Your task to perform on an android device: open app "Move to iOS" (install if not already installed) Image 0: 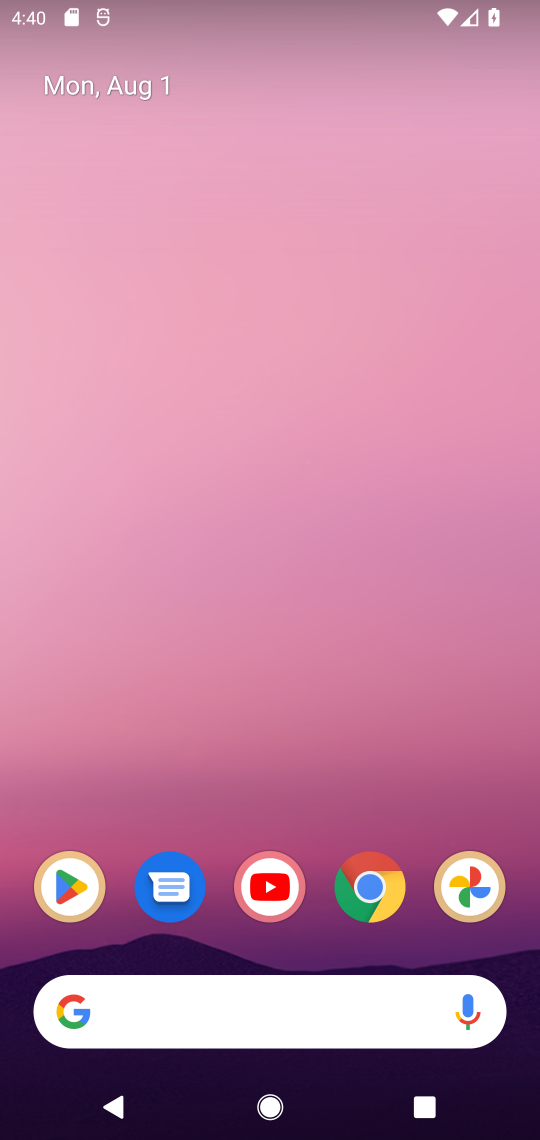
Step 0: click (96, 874)
Your task to perform on an android device: open app "Move to iOS" (install if not already installed) Image 1: 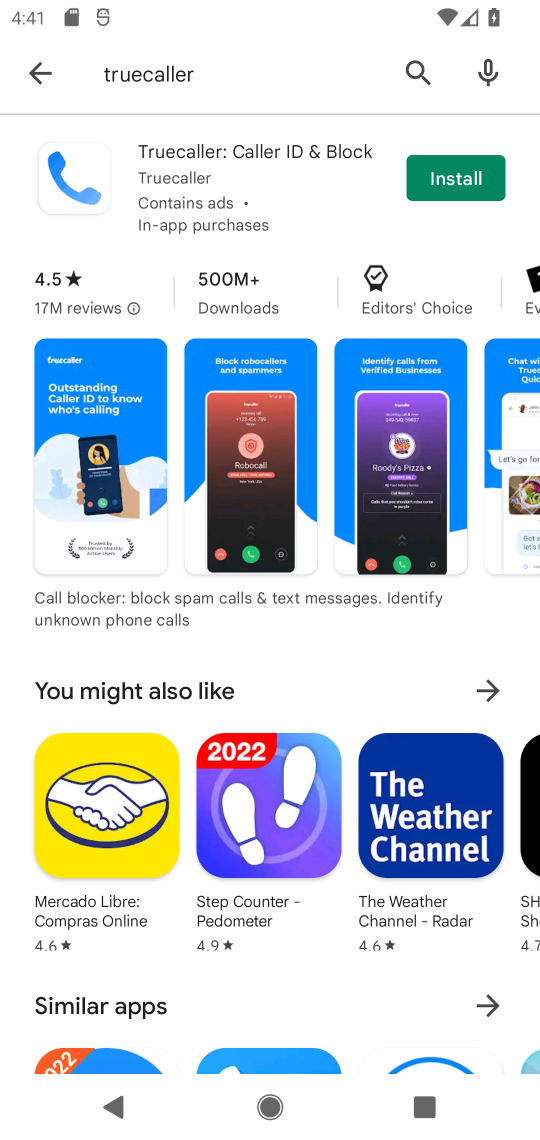
Step 1: click (37, 69)
Your task to perform on an android device: open app "Move to iOS" (install if not already installed) Image 2: 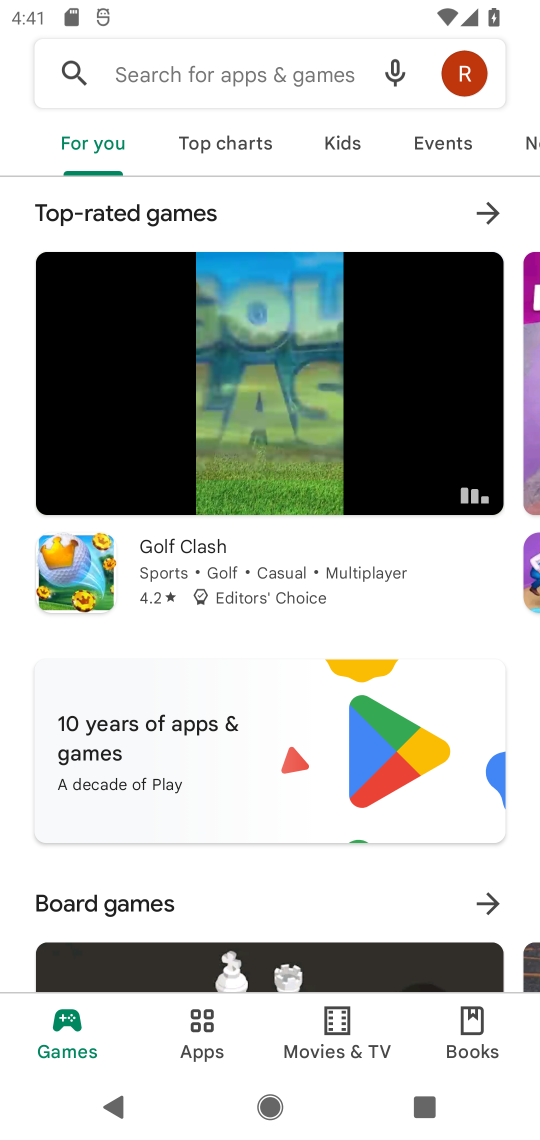
Step 2: click (155, 71)
Your task to perform on an android device: open app "Move to iOS" (install if not already installed) Image 3: 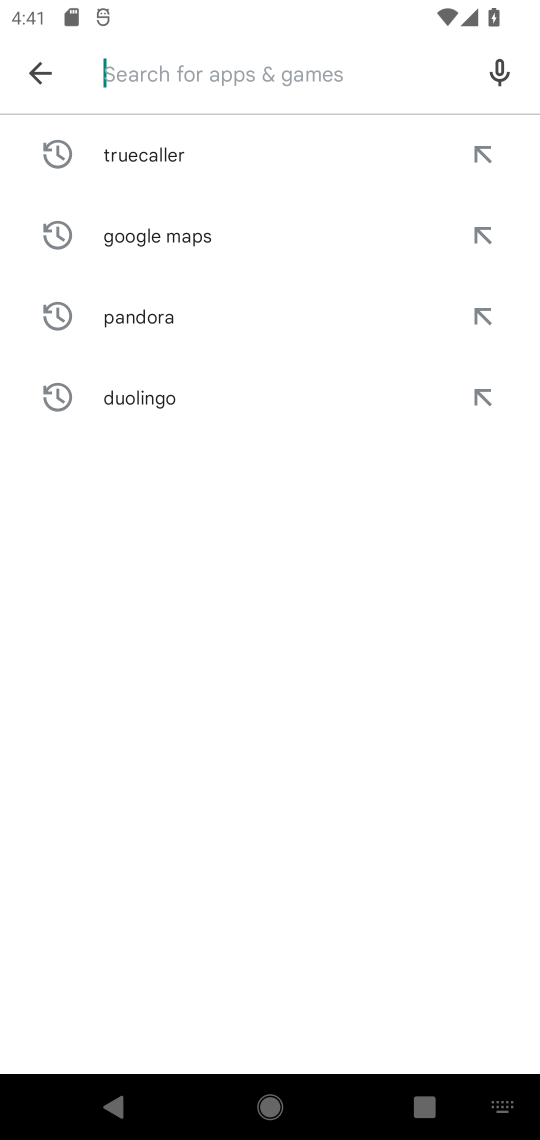
Step 3: click (506, 1080)
Your task to perform on an android device: open app "Move to iOS" (install if not already installed) Image 4: 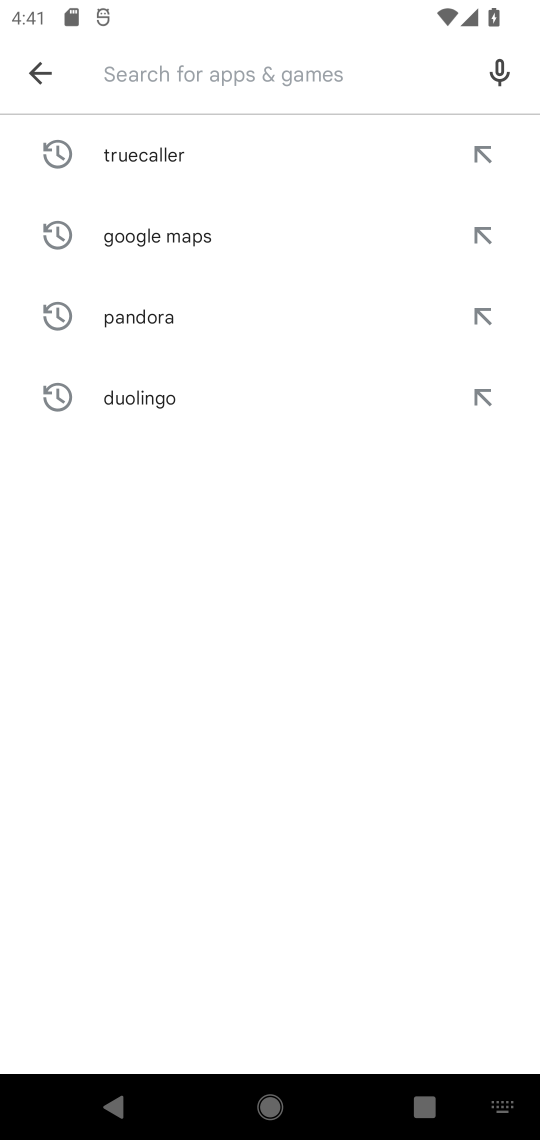
Step 4: type "Move to iOS"
Your task to perform on an android device: open app "Move to iOS" (install if not already installed) Image 5: 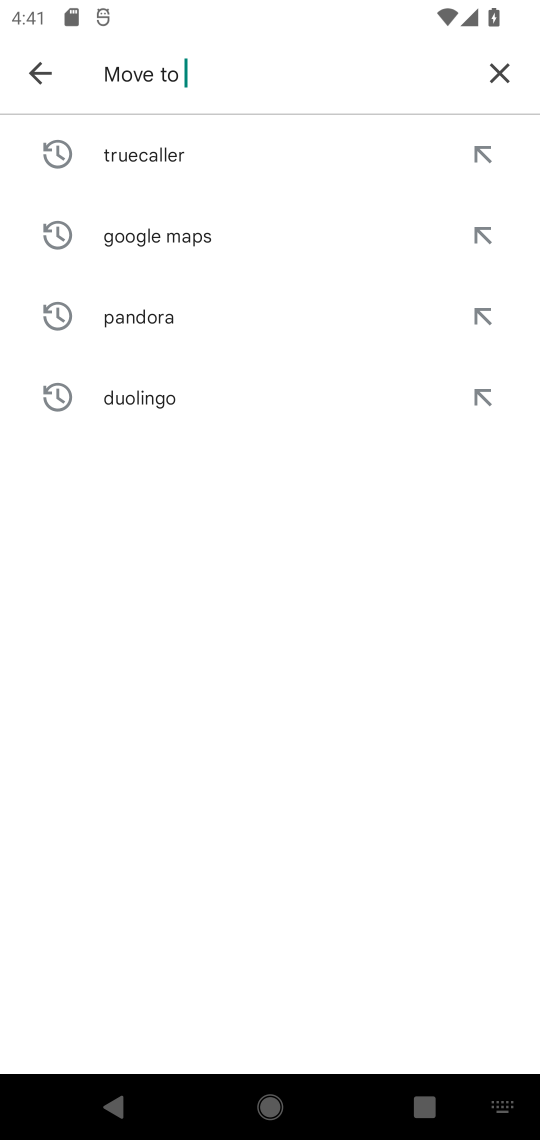
Step 5: drag from (506, 1080) to (330, 458)
Your task to perform on an android device: open app "Move to iOS" (install if not already installed) Image 6: 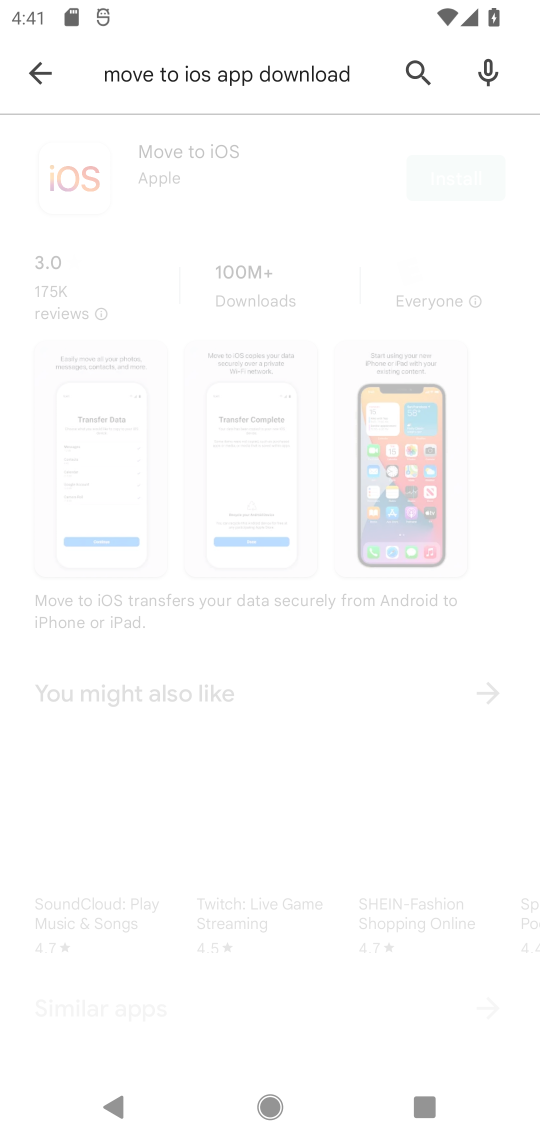
Step 6: click (128, 156)
Your task to perform on an android device: open app "Move to iOS" (install if not already installed) Image 7: 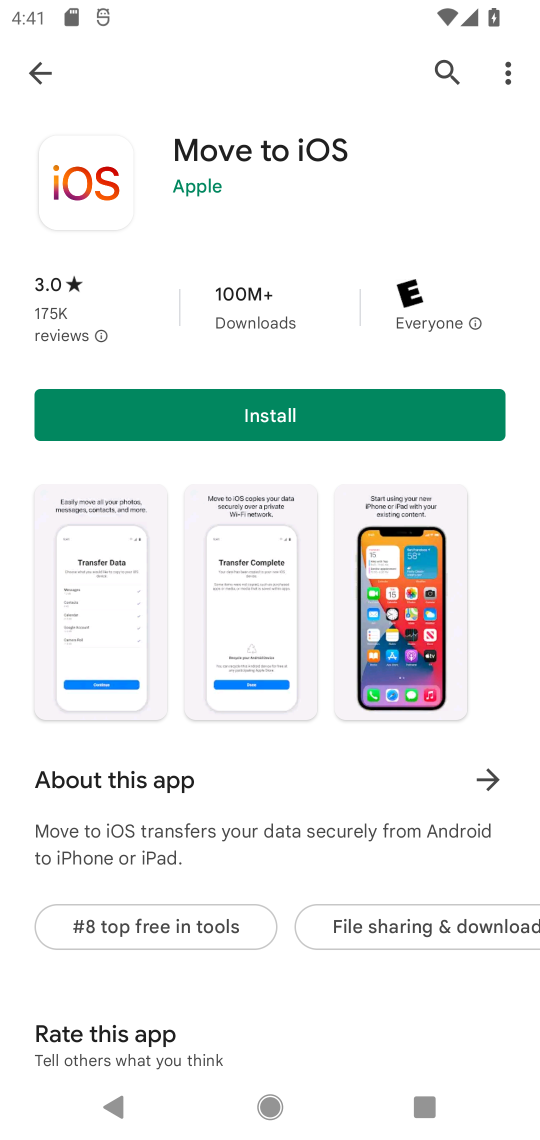
Step 7: click (247, 400)
Your task to perform on an android device: open app "Move to iOS" (install if not already installed) Image 8: 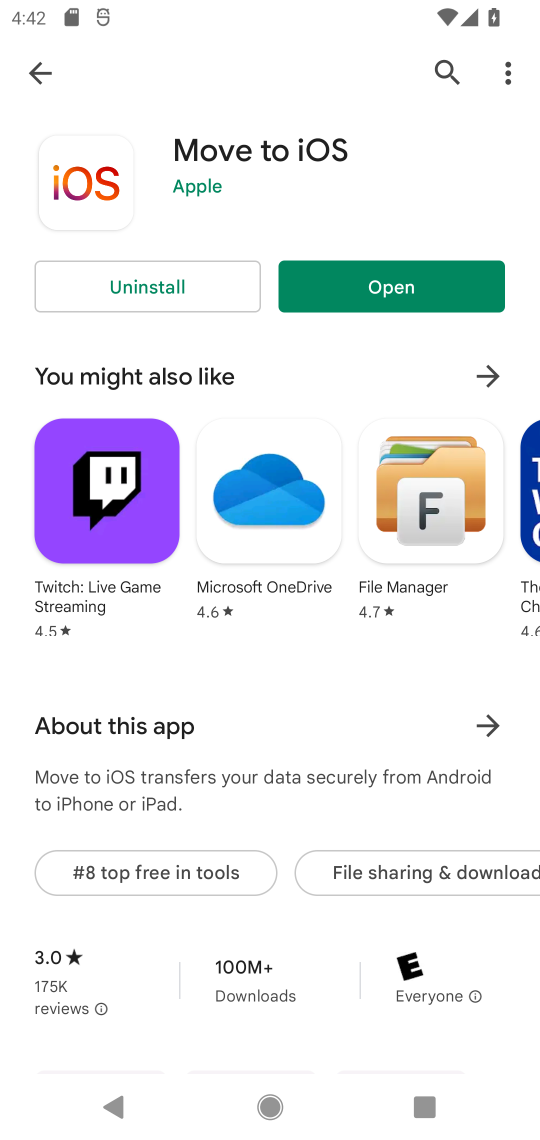
Step 8: click (345, 292)
Your task to perform on an android device: open app "Move to iOS" (install if not already installed) Image 9: 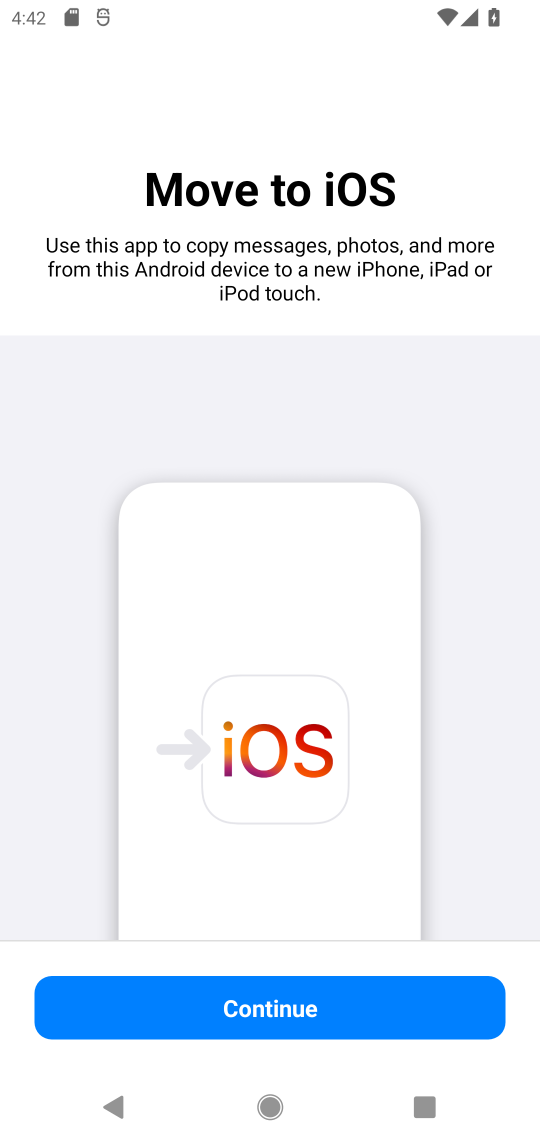
Step 9: task complete